Your task to perform on an android device: turn off picture-in-picture Image 0: 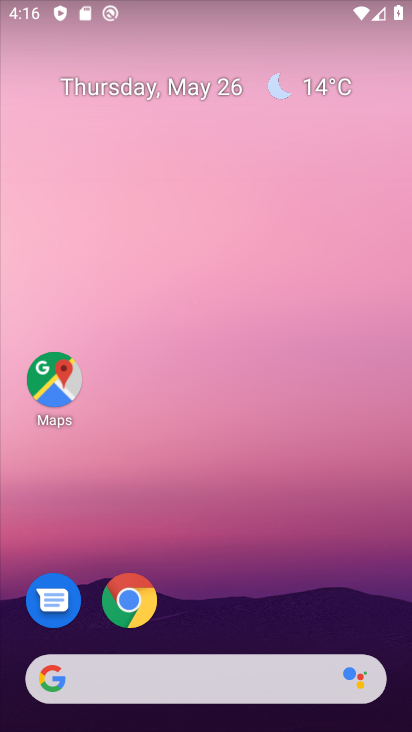
Step 0: click (144, 609)
Your task to perform on an android device: turn off picture-in-picture Image 1: 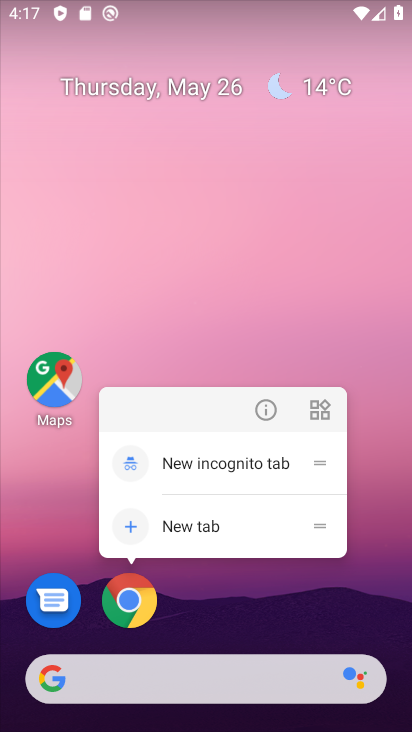
Step 1: click (263, 401)
Your task to perform on an android device: turn off picture-in-picture Image 2: 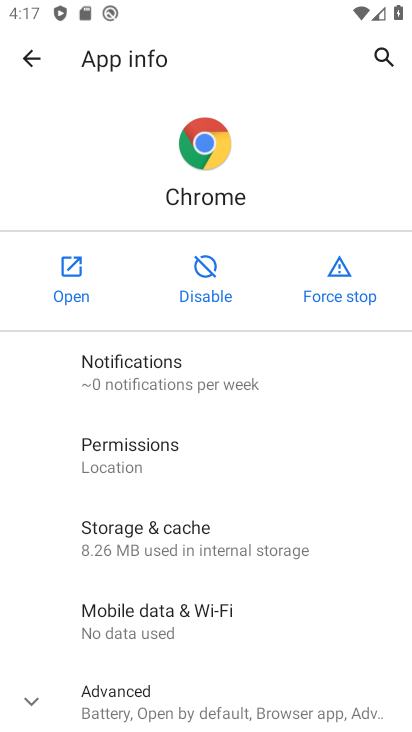
Step 2: drag from (203, 660) to (376, 73)
Your task to perform on an android device: turn off picture-in-picture Image 3: 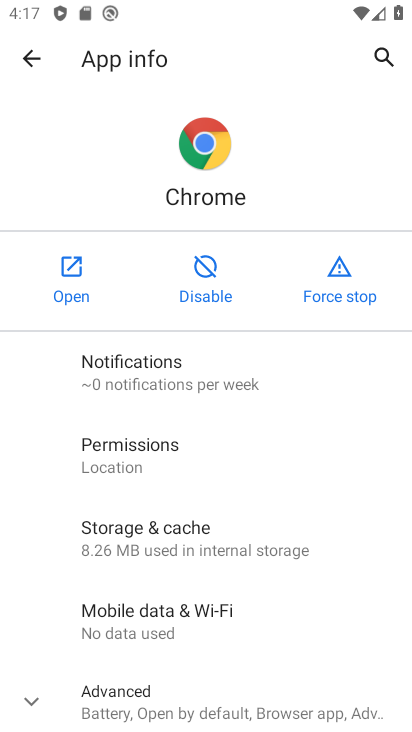
Step 3: click (137, 677)
Your task to perform on an android device: turn off picture-in-picture Image 4: 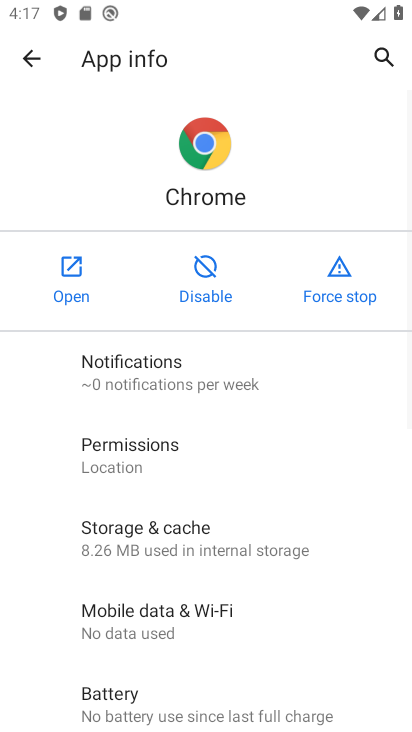
Step 4: drag from (137, 677) to (181, 33)
Your task to perform on an android device: turn off picture-in-picture Image 5: 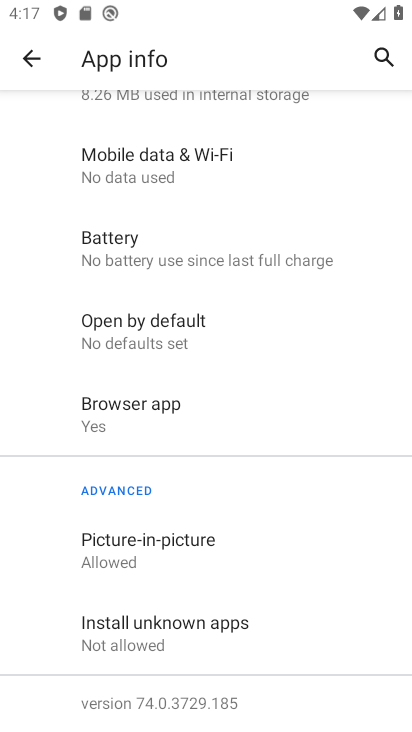
Step 5: click (182, 564)
Your task to perform on an android device: turn off picture-in-picture Image 6: 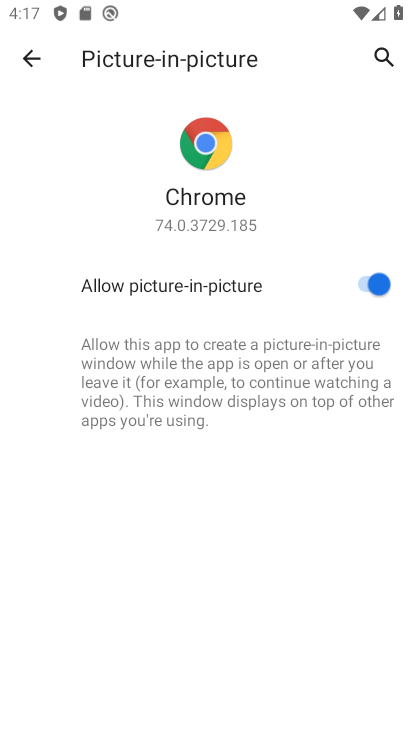
Step 6: click (376, 293)
Your task to perform on an android device: turn off picture-in-picture Image 7: 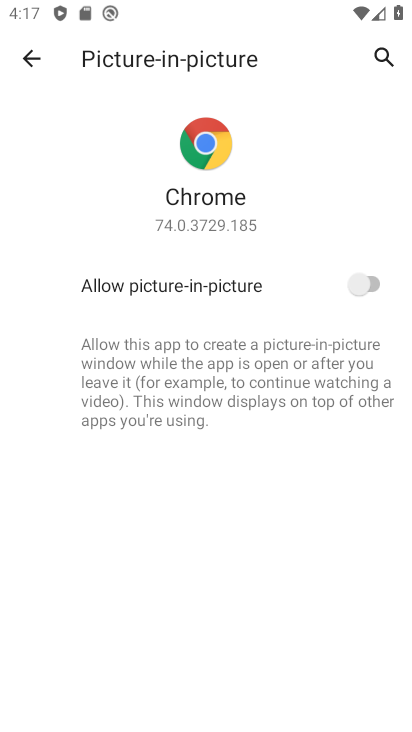
Step 7: task complete